Your task to perform on an android device: install app "Gmail" Image 0: 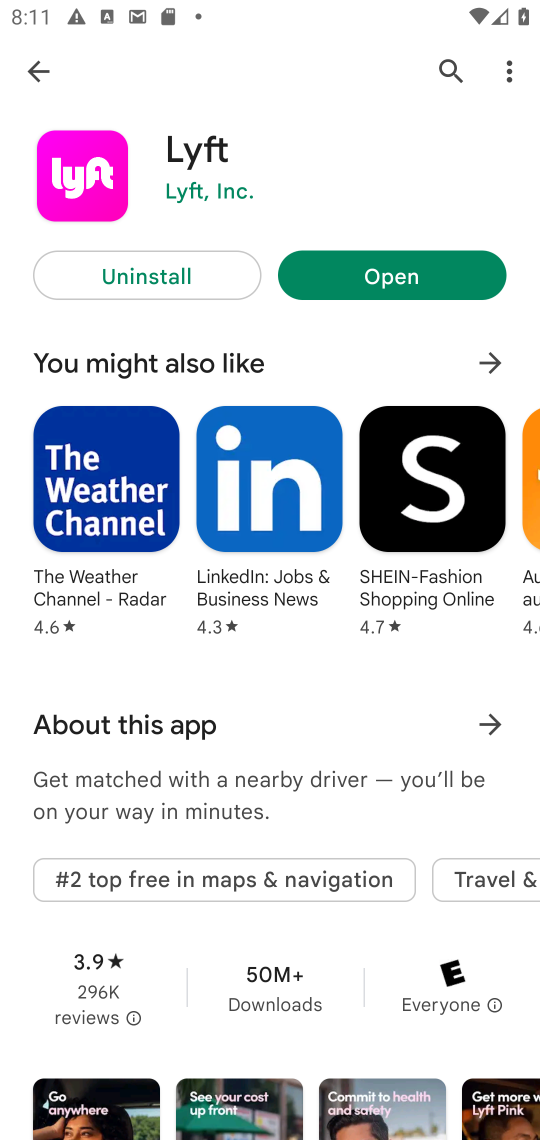
Step 0: click (441, 70)
Your task to perform on an android device: install app "Gmail" Image 1: 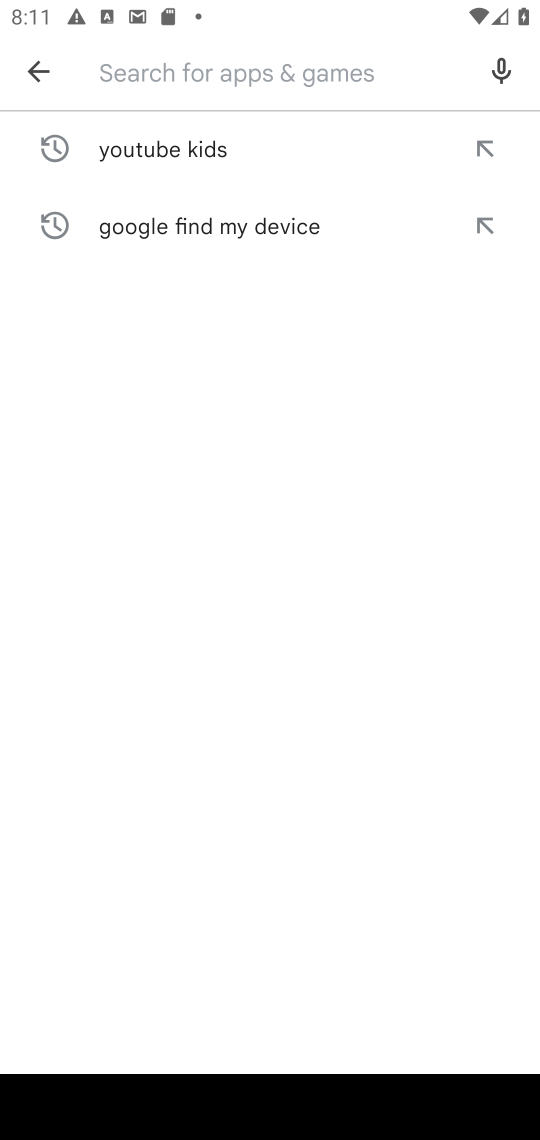
Step 1: type "Gmail"
Your task to perform on an android device: install app "Gmail" Image 2: 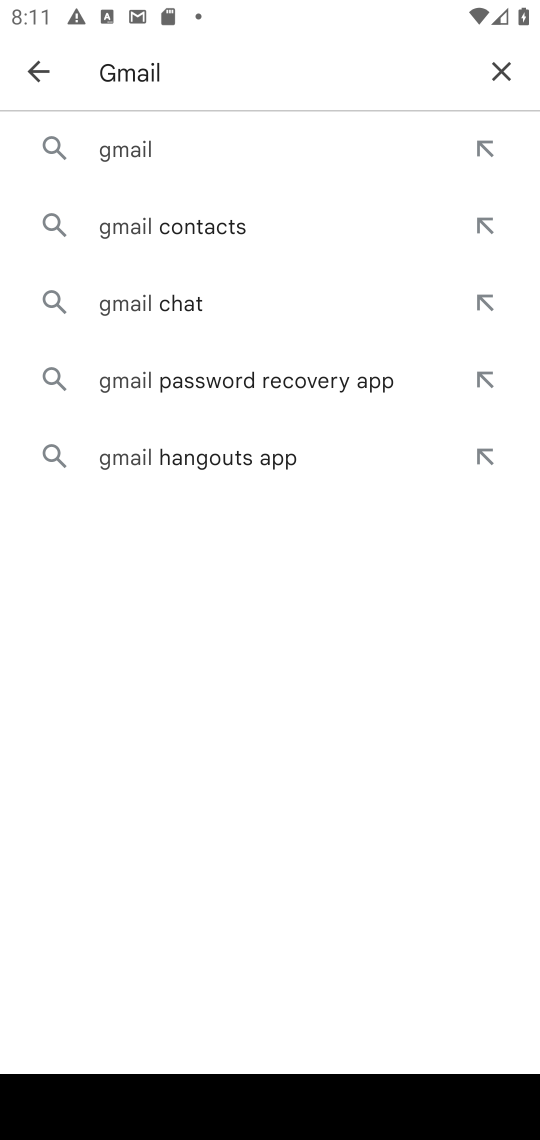
Step 2: click (114, 149)
Your task to perform on an android device: install app "Gmail" Image 3: 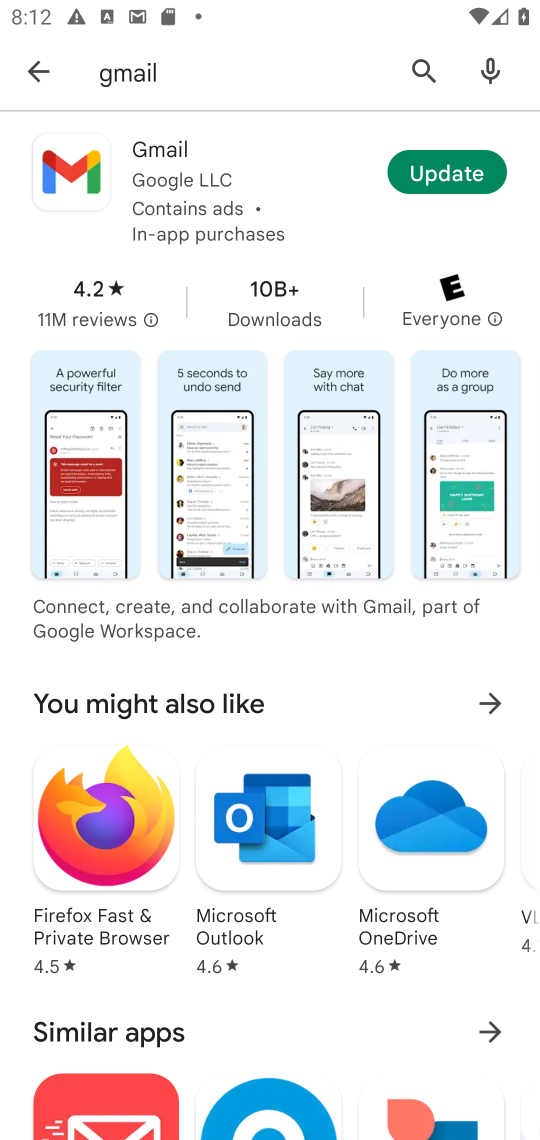
Step 3: task complete